Your task to perform on an android device: Open Google Chrome and click the shortcut for Amazon.com Image 0: 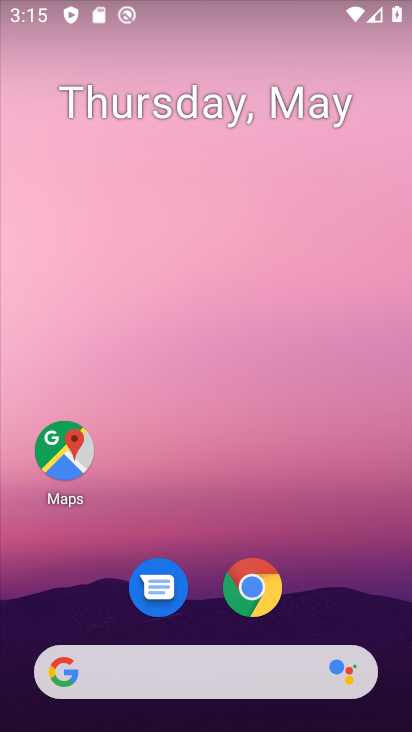
Step 0: click (253, 579)
Your task to perform on an android device: Open Google Chrome and click the shortcut for Amazon.com Image 1: 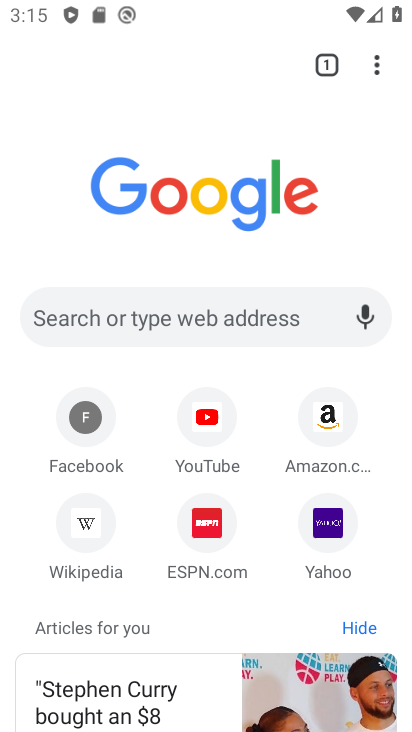
Step 1: click (309, 432)
Your task to perform on an android device: Open Google Chrome and click the shortcut for Amazon.com Image 2: 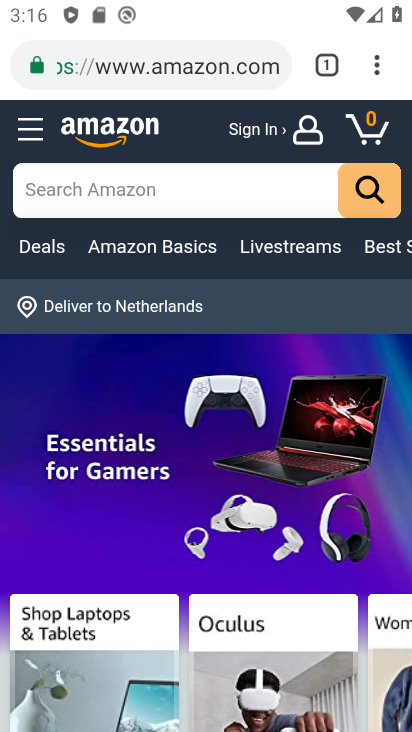
Step 2: task complete